Your task to perform on an android device: see sites visited before in the chrome app Image 0: 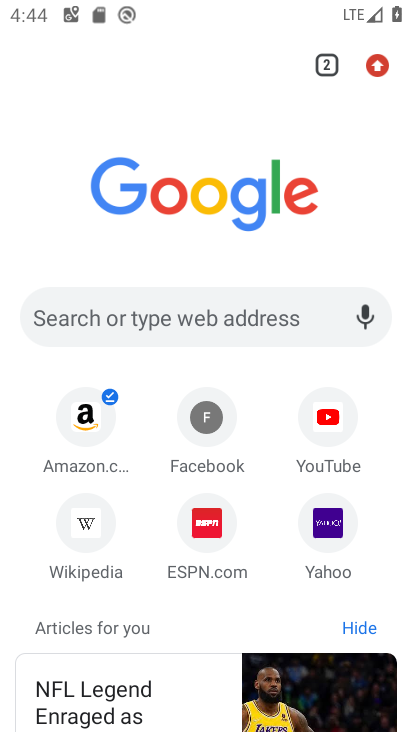
Step 0: drag from (376, 69) to (220, 466)
Your task to perform on an android device: see sites visited before in the chrome app Image 1: 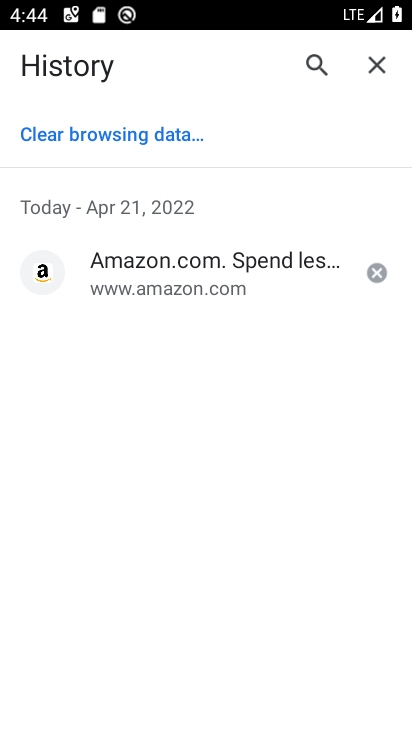
Step 1: task complete